Your task to perform on an android device: Show me popular videos on Youtube Image 0: 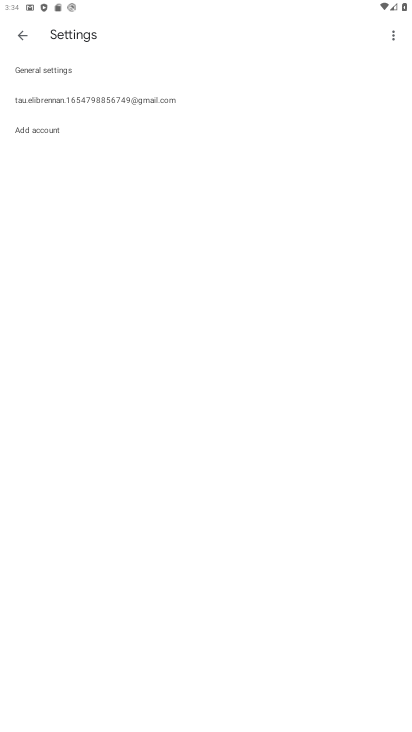
Step 0: press home button
Your task to perform on an android device: Show me popular videos on Youtube Image 1: 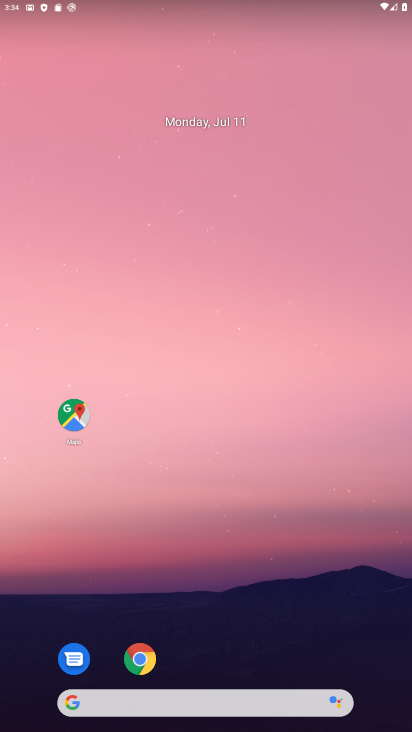
Step 1: drag from (207, 660) to (213, 15)
Your task to perform on an android device: Show me popular videos on Youtube Image 2: 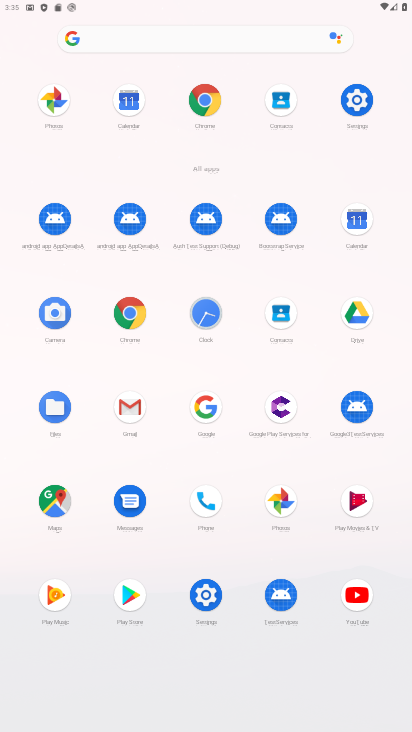
Step 2: click (357, 598)
Your task to perform on an android device: Show me popular videos on Youtube Image 3: 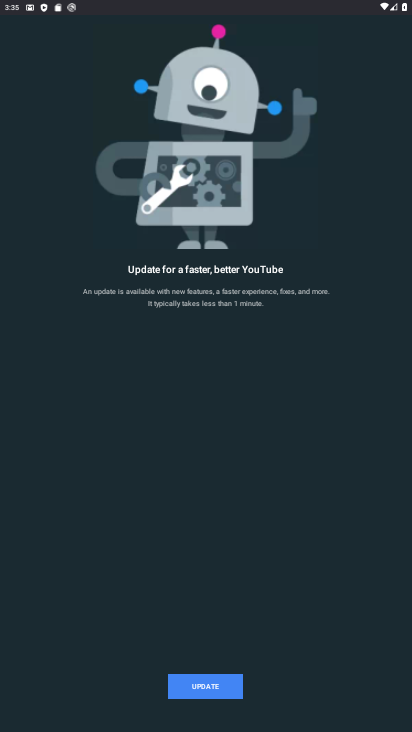
Step 3: click (215, 698)
Your task to perform on an android device: Show me popular videos on Youtube Image 4: 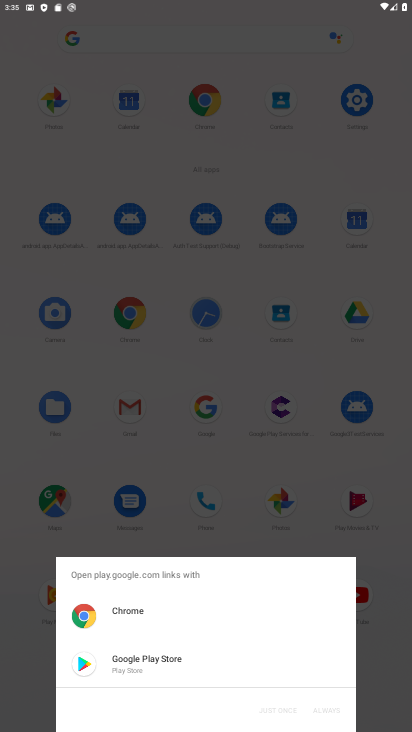
Step 4: click (134, 656)
Your task to perform on an android device: Show me popular videos on Youtube Image 5: 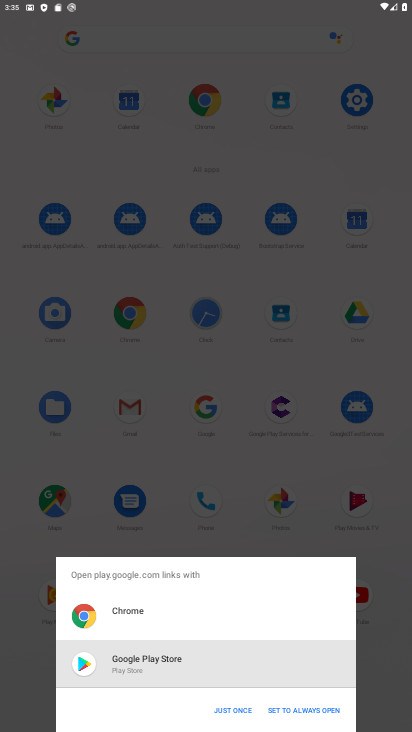
Step 5: click (302, 708)
Your task to perform on an android device: Show me popular videos on Youtube Image 6: 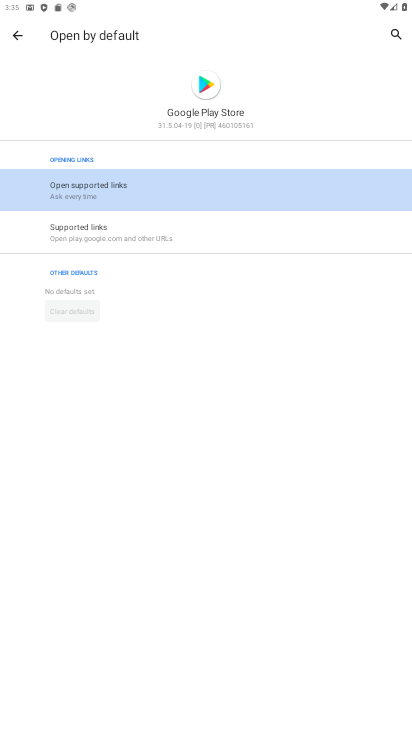
Step 6: click (97, 178)
Your task to perform on an android device: Show me popular videos on Youtube Image 7: 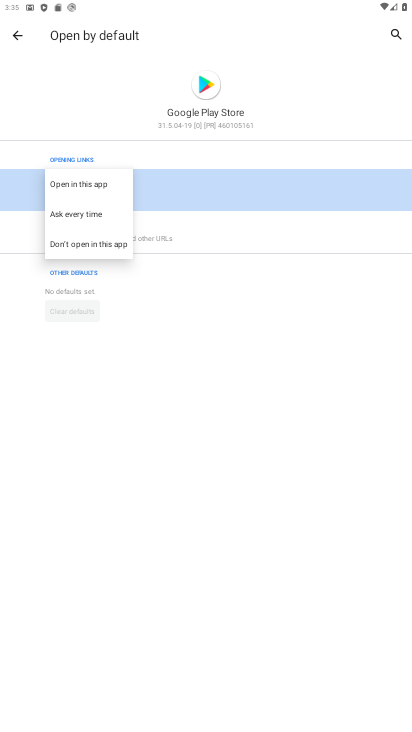
Step 7: click (97, 187)
Your task to perform on an android device: Show me popular videos on Youtube Image 8: 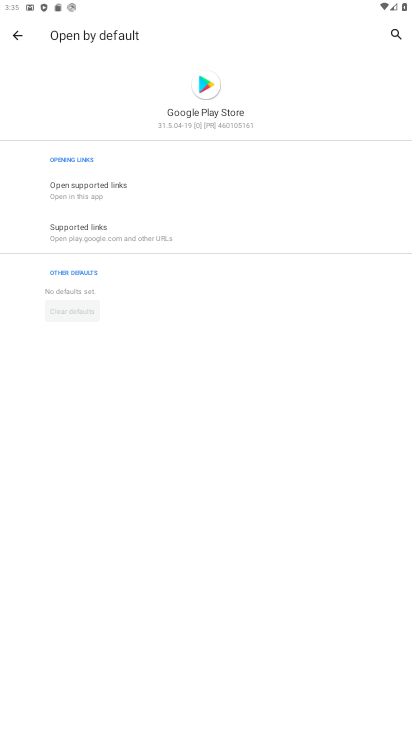
Step 8: click (15, 38)
Your task to perform on an android device: Show me popular videos on Youtube Image 9: 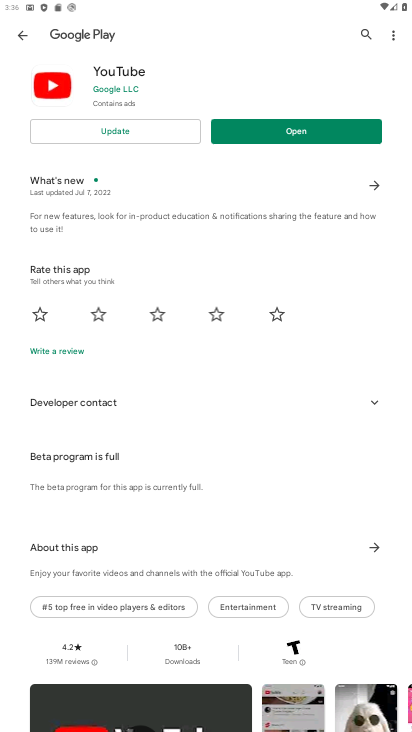
Step 9: click (124, 136)
Your task to perform on an android device: Show me popular videos on Youtube Image 10: 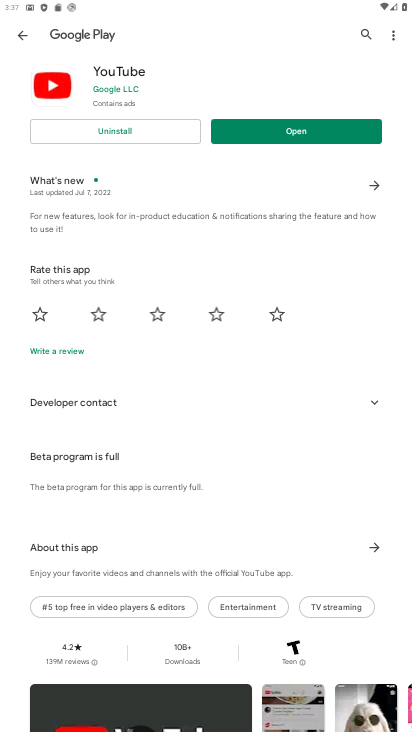
Step 10: click (237, 121)
Your task to perform on an android device: Show me popular videos on Youtube Image 11: 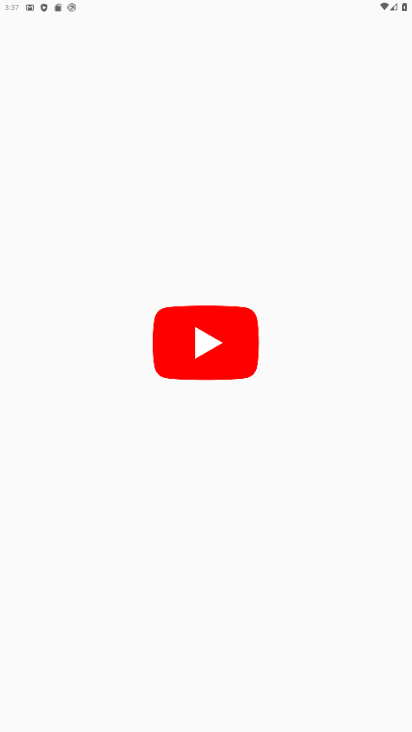
Step 11: click (281, 131)
Your task to perform on an android device: Show me popular videos on Youtube Image 12: 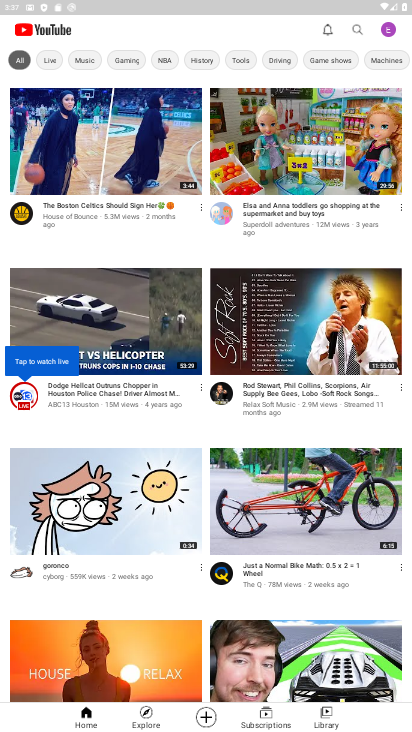
Step 12: task complete